Your task to perform on an android device: Open the Play Movies app and select the watchlist tab. Image 0: 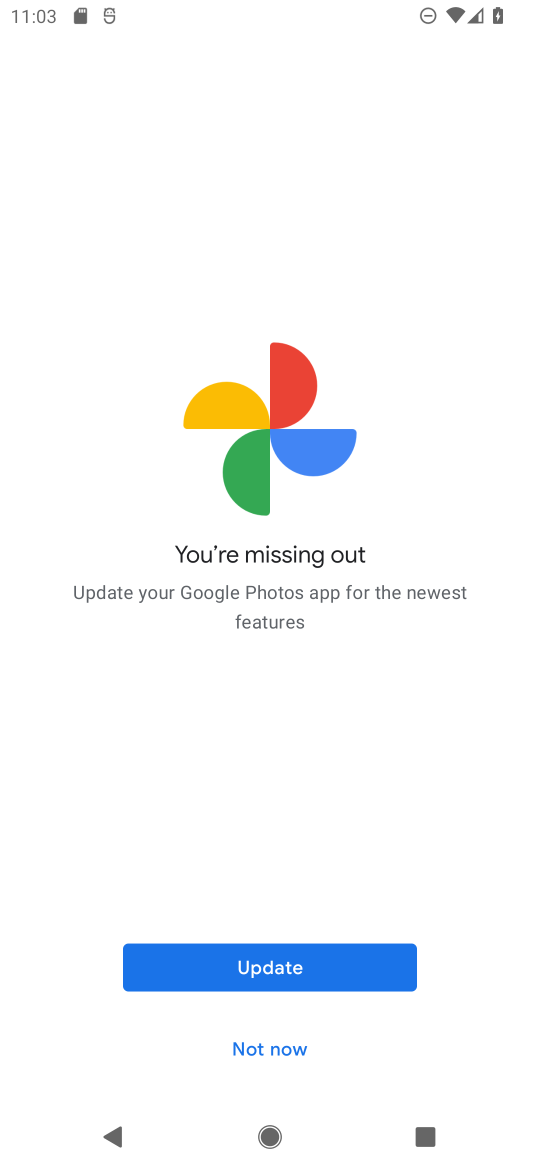
Step 0: press home button
Your task to perform on an android device: Open the Play Movies app and select the watchlist tab. Image 1: 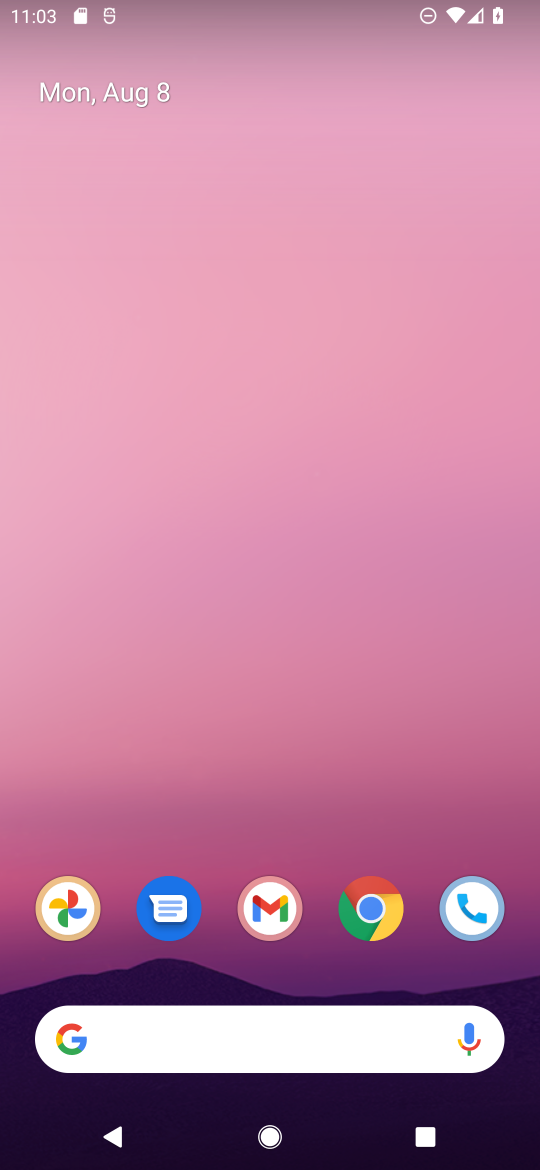
Step 1: task complete